Your task to perform on an android device: set default search engine in the chrome app Image 0: 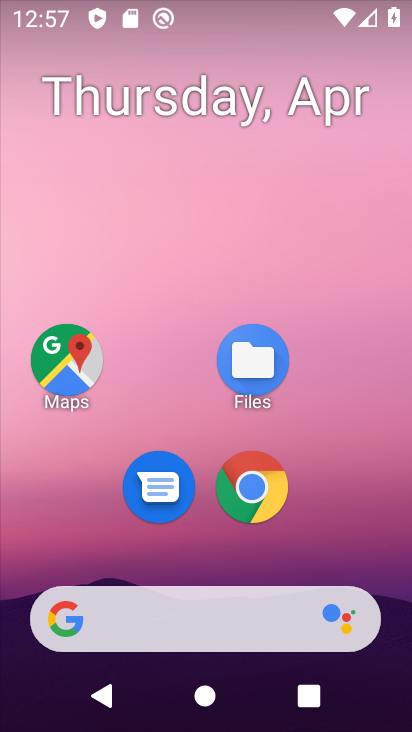
Step 0: drag from (374, 484) to (385, 205)
Your task to perform on an android device: set default search engine in the chrome app Image 1: 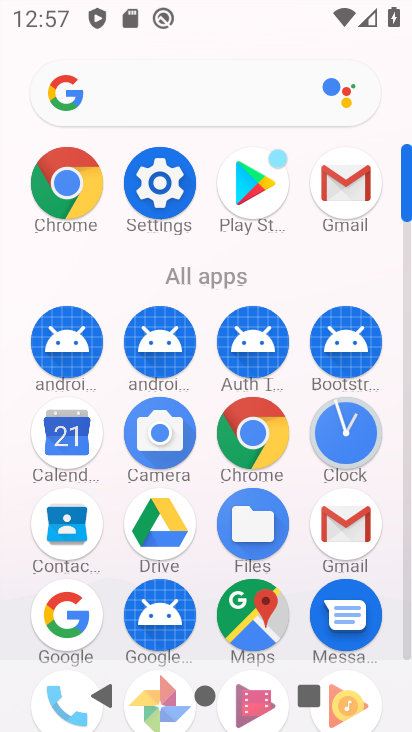
Step 1: click (250, 449)
Your task to perform on an android device: set default search engine in the chrome app Image 2: 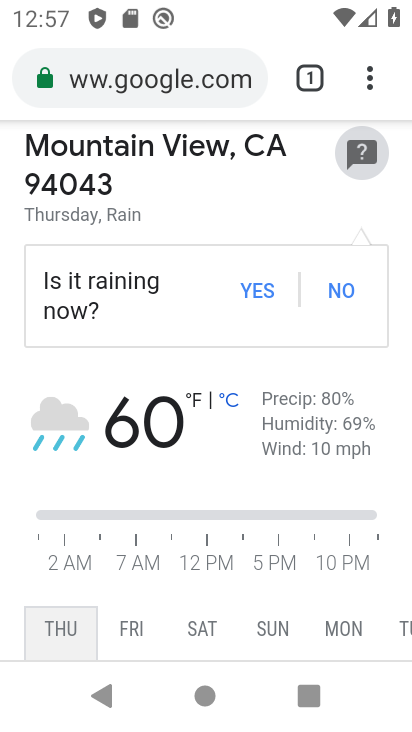
Step 2: drag from (366, 85) to (168, 547)
Your task to perform on an android device: set default search engine in the chrome app Image 3: 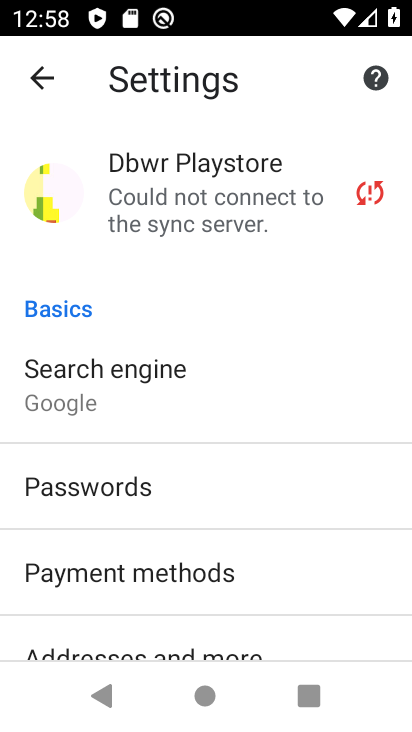
Step 3: click (145, 393)
Your task to perform on an android device: set default search engine in the chrome app Image 4: 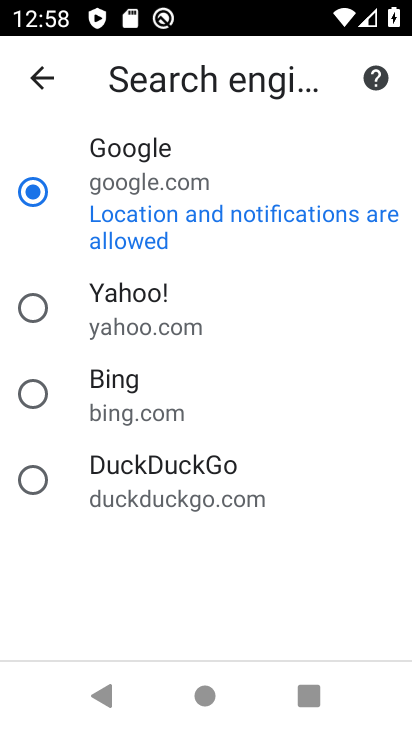
Step 4: click (118, 307)
Your task to perform on an android device: set default search engine in the chrome app Image 5: 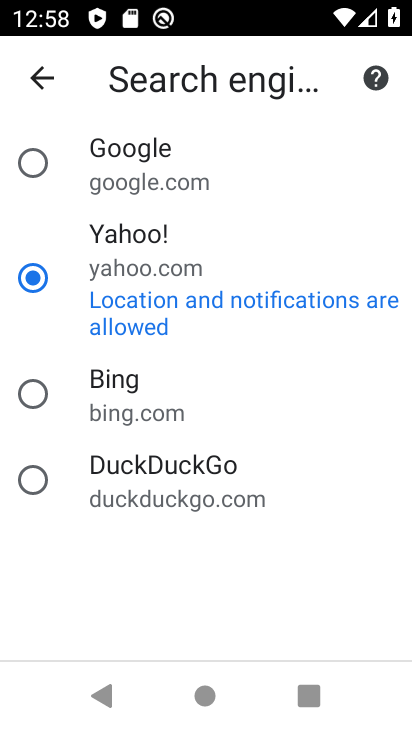
Step 5: task complete